Your task to perform on an android device: open app "Speedtest by Ookla" (install if not already installed), go to login, and select forgot password Image 0: 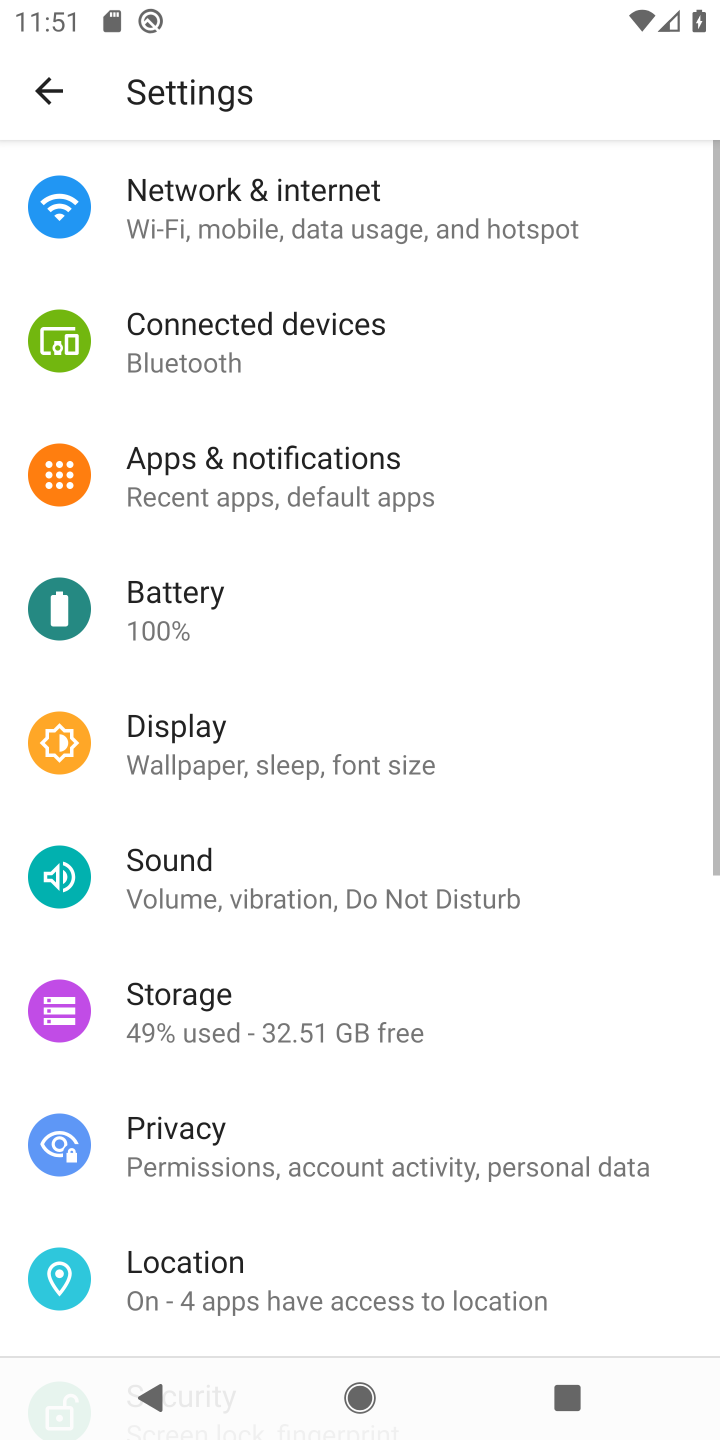
Step 0: press home button
Your task to perform on an android device: open app "Speedtest by Ookla" (install if not already installed), go to login, and select forgot password Image 1: 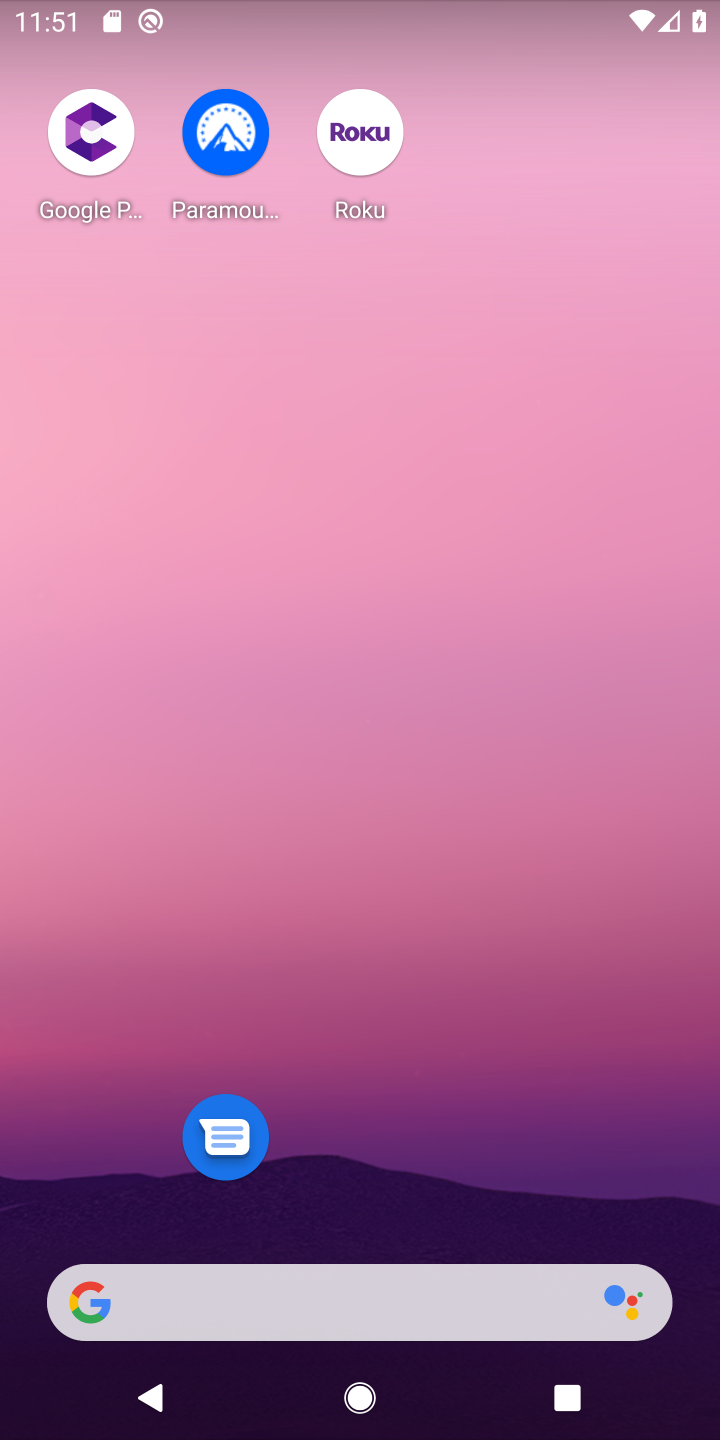
Step 1: drag from (351, 1239) to (420, 333)
Your task to perform on an android device: open app "Speedtest by Ookla" (install if not already installed), go to login, and select forgot password Image 2: 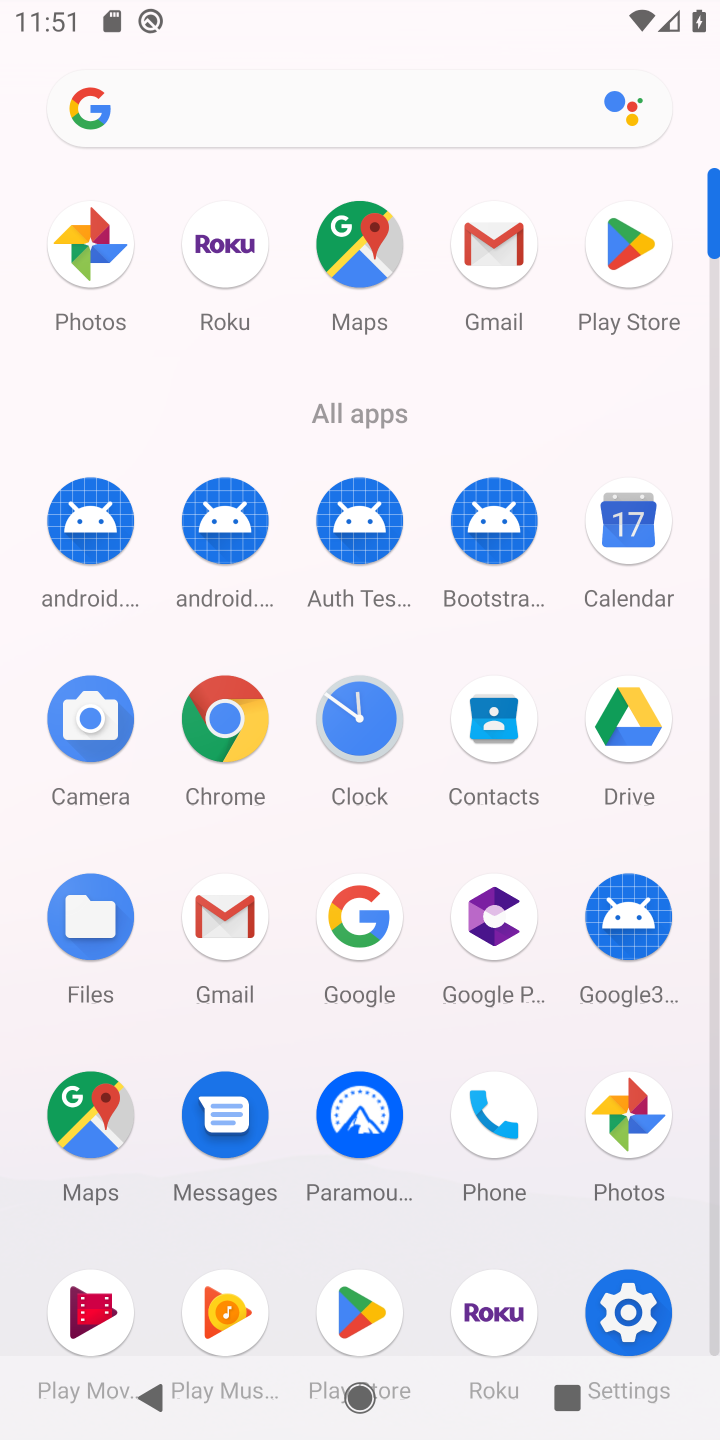
Step 2: click (604, 248)
Your task to perform on an android device: open app "Speedtest by Ookla" (install if not already installed), go to login, and select forgot password Image 3: 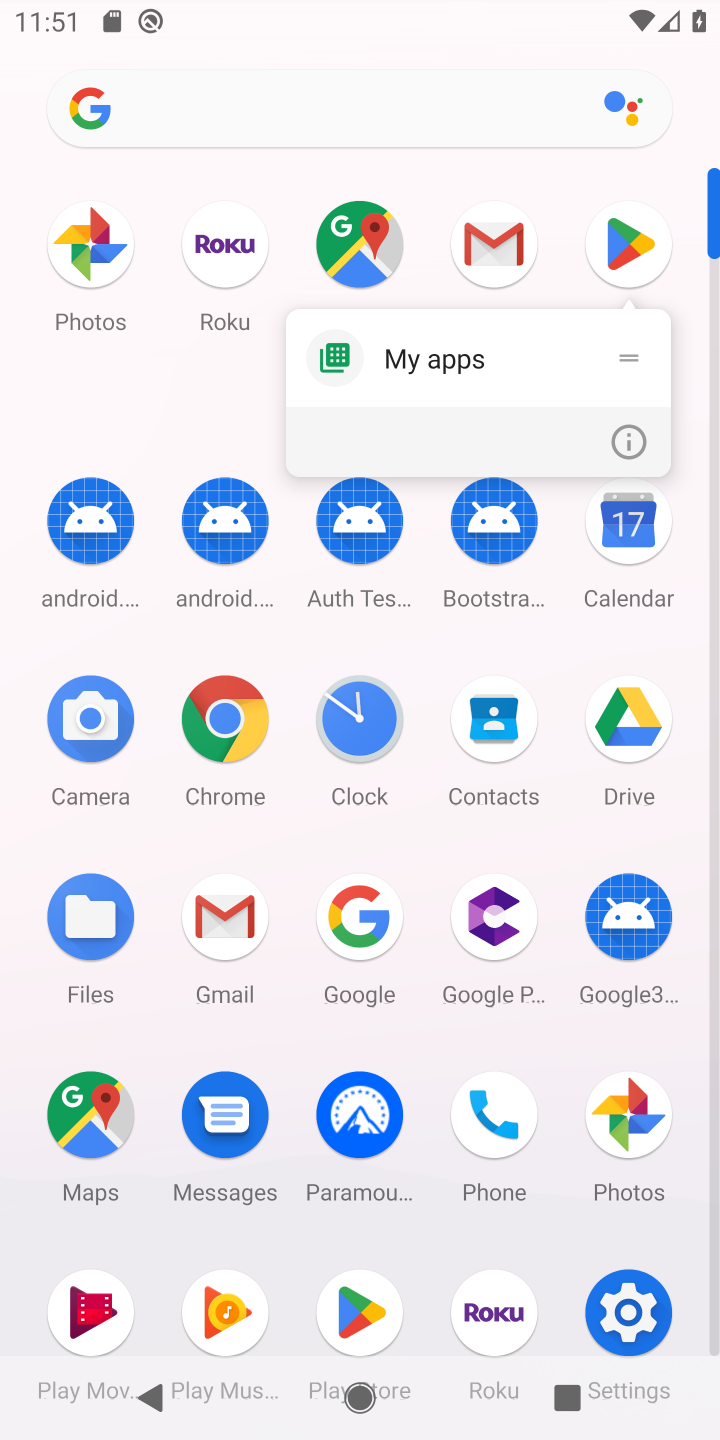
Step 3: click (614, 261)
Your task to perform on an android device: open app "Speedtest by Ookla" (install if not already installed), go to login, and select forgot password Image 4: 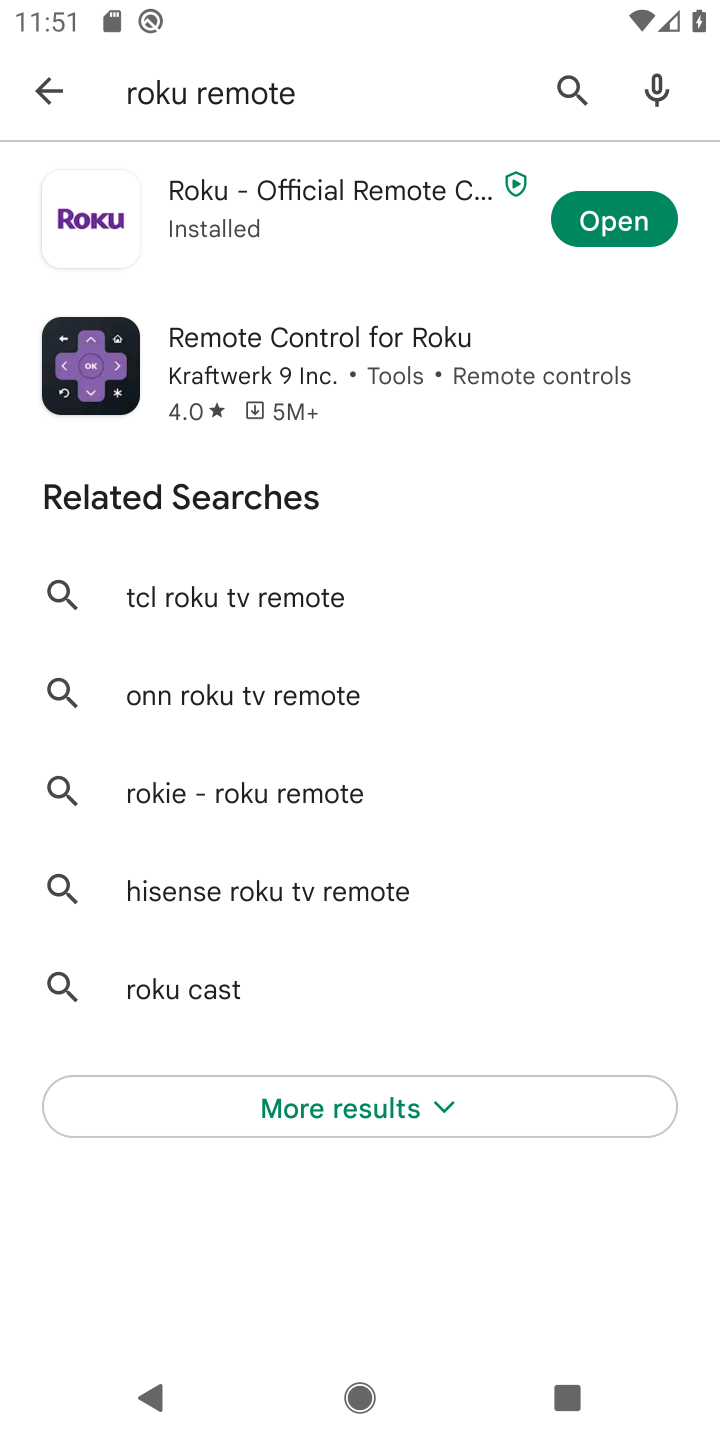
Step 4: click (48, 84)
Your task to perform on an android device: open app "Speedtest by Ookla" (install if not already installed), go to login, and select forgot password Image 5: 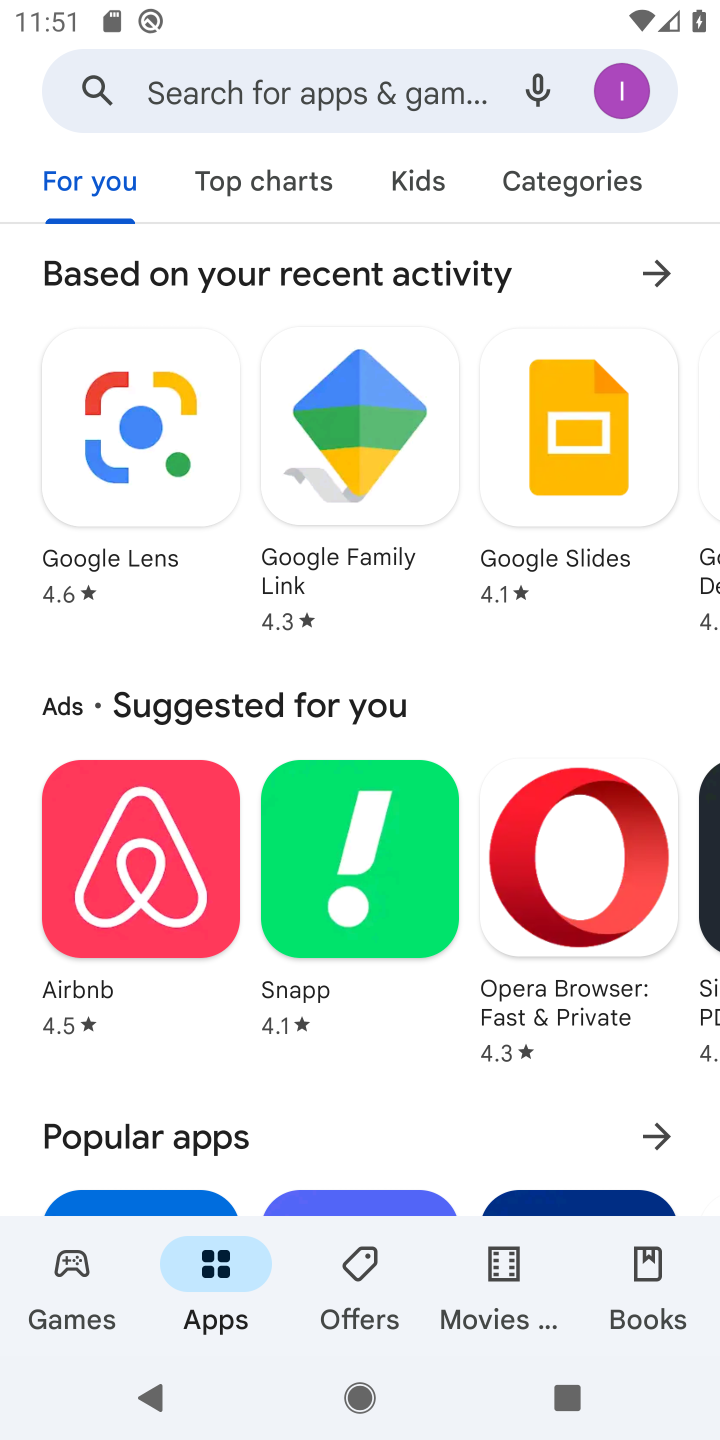
Step 5: click (248, 84)
Your task to perform on an android device: open app "Speedtest by Ookla" (install if not already installed), go to login, and select forgot password Image 6: 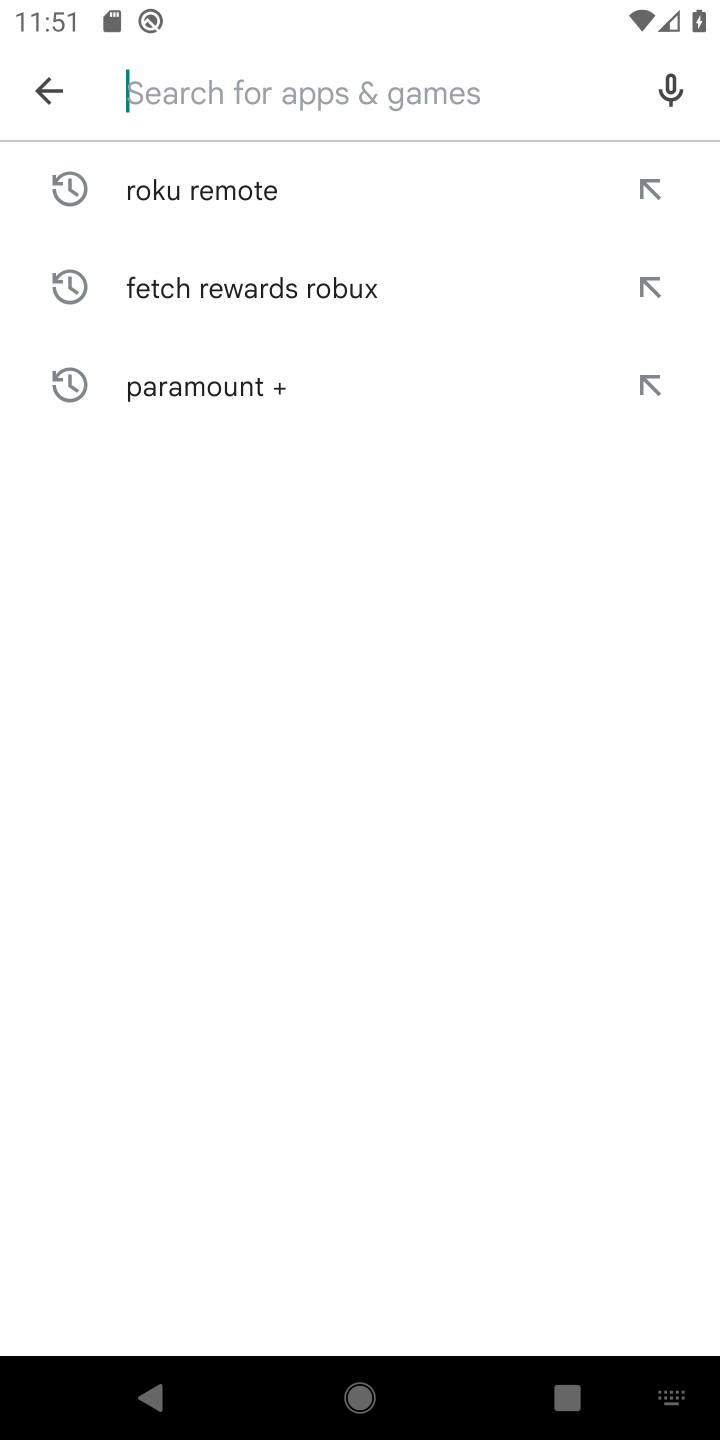
Step 6: type "Speedtest by Ookla "
Your task to perform on an android device: open app "Speedtest by Ookla" (install if not already installed), go to login, and select forgot password Image 7: 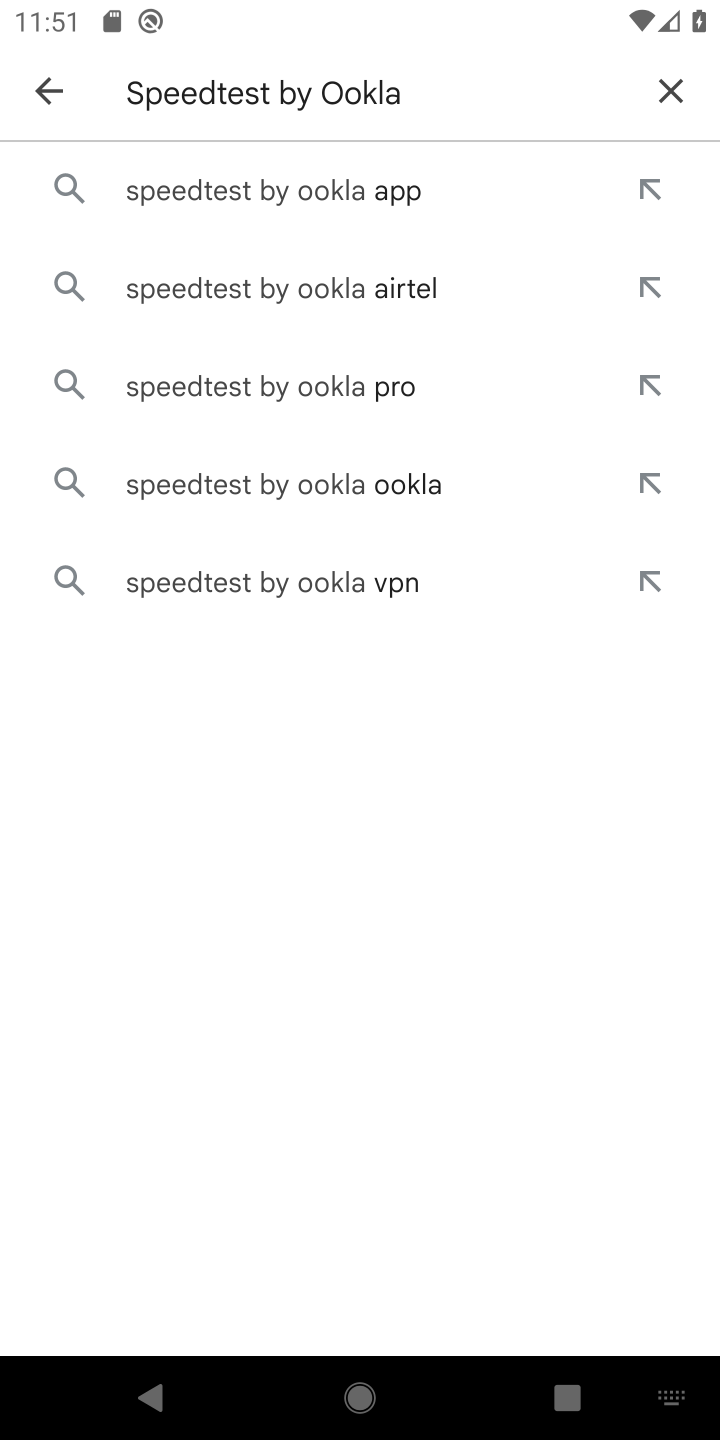
Step 7: click (365, 188)
Your task to perform on an android device: open app "Speedtest by Ookla" (install if not already installed), go to login, and select forgot password Image 8: 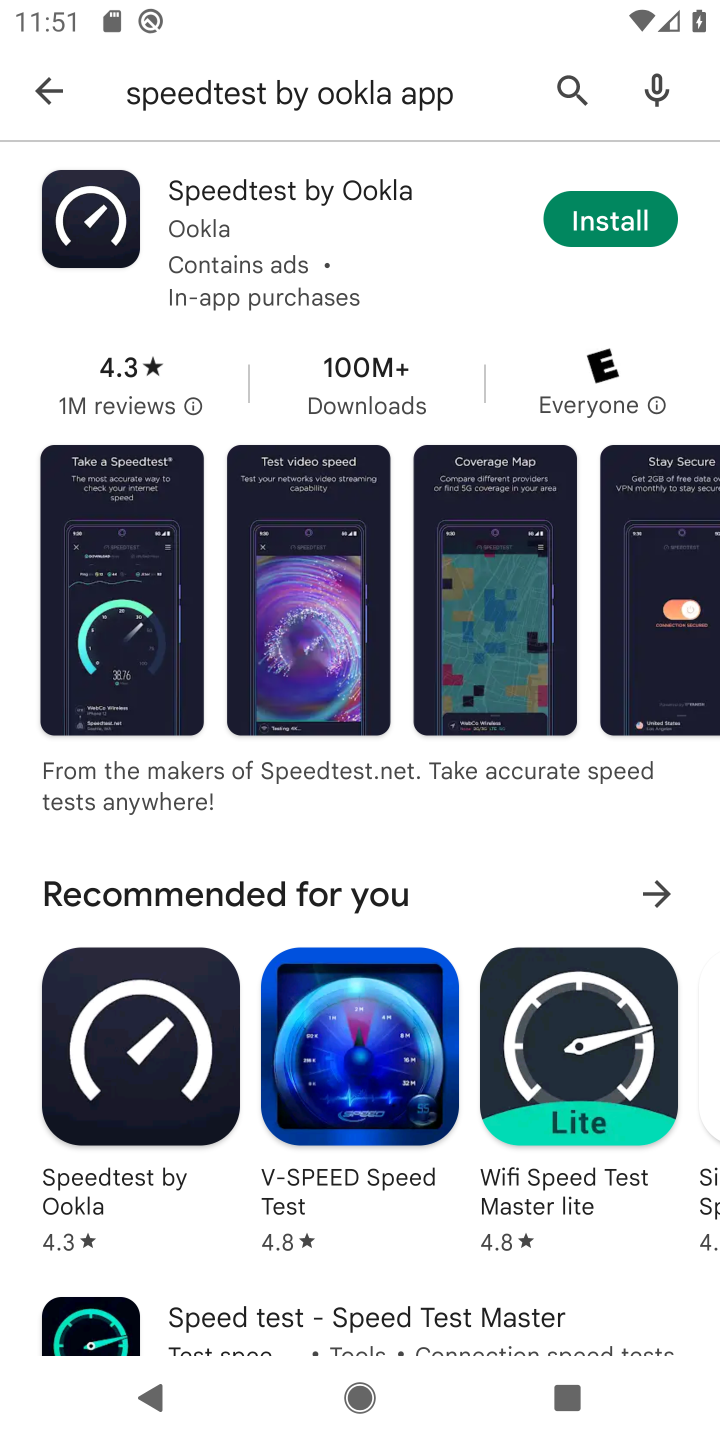
Step 8: click (616, 222)
Your task to perform on an android device: open app "Speedtest by Ookla" (install if not already installed), go to login, and select forgot password Image 9: 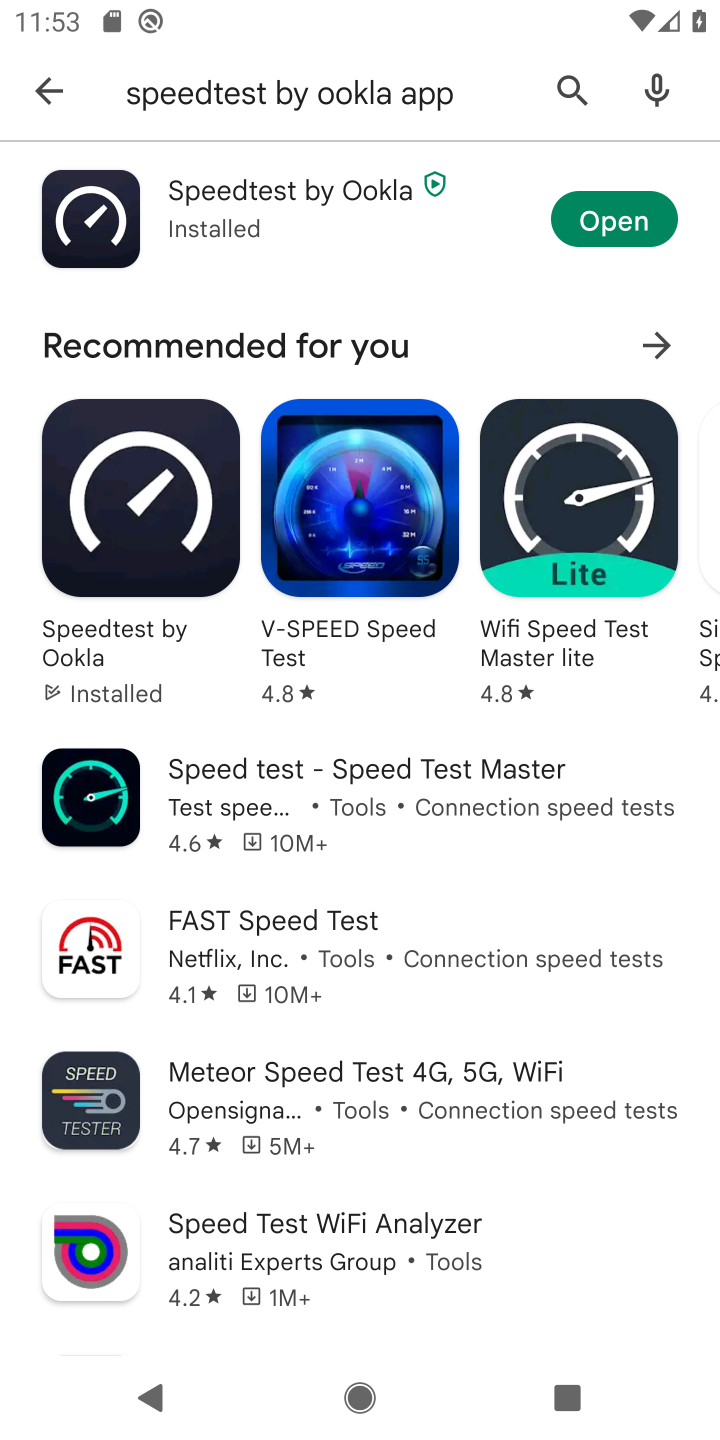
Step 9: click (618, 208)
Your task to perform on an android device: open app "Speedtest by Ookla" (install if not already installed), go to login, and select forgot password Image 10: 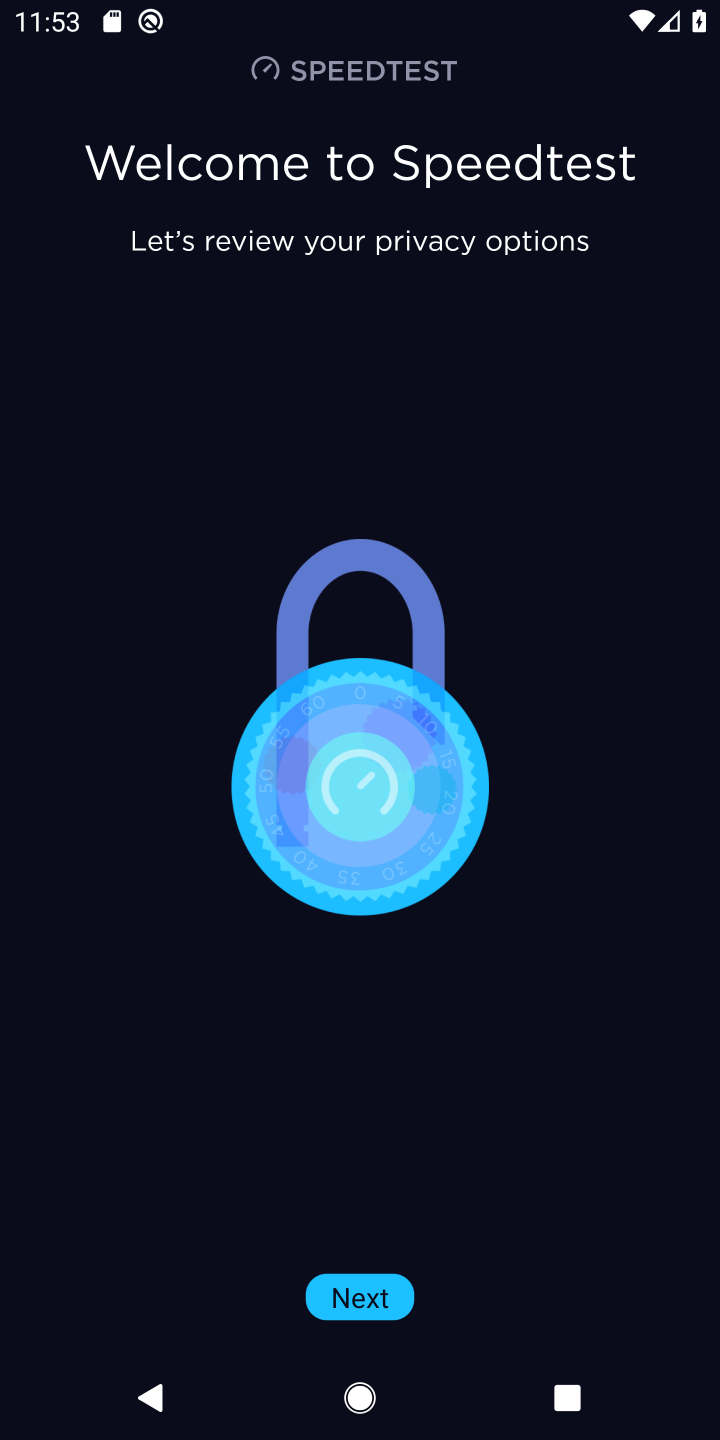
Step 10: click (333, 1299)
Your task to perform on an android device: open app "Speedtest by Ookla" (install if not already installed), go to login, and select forgot password Image 11: 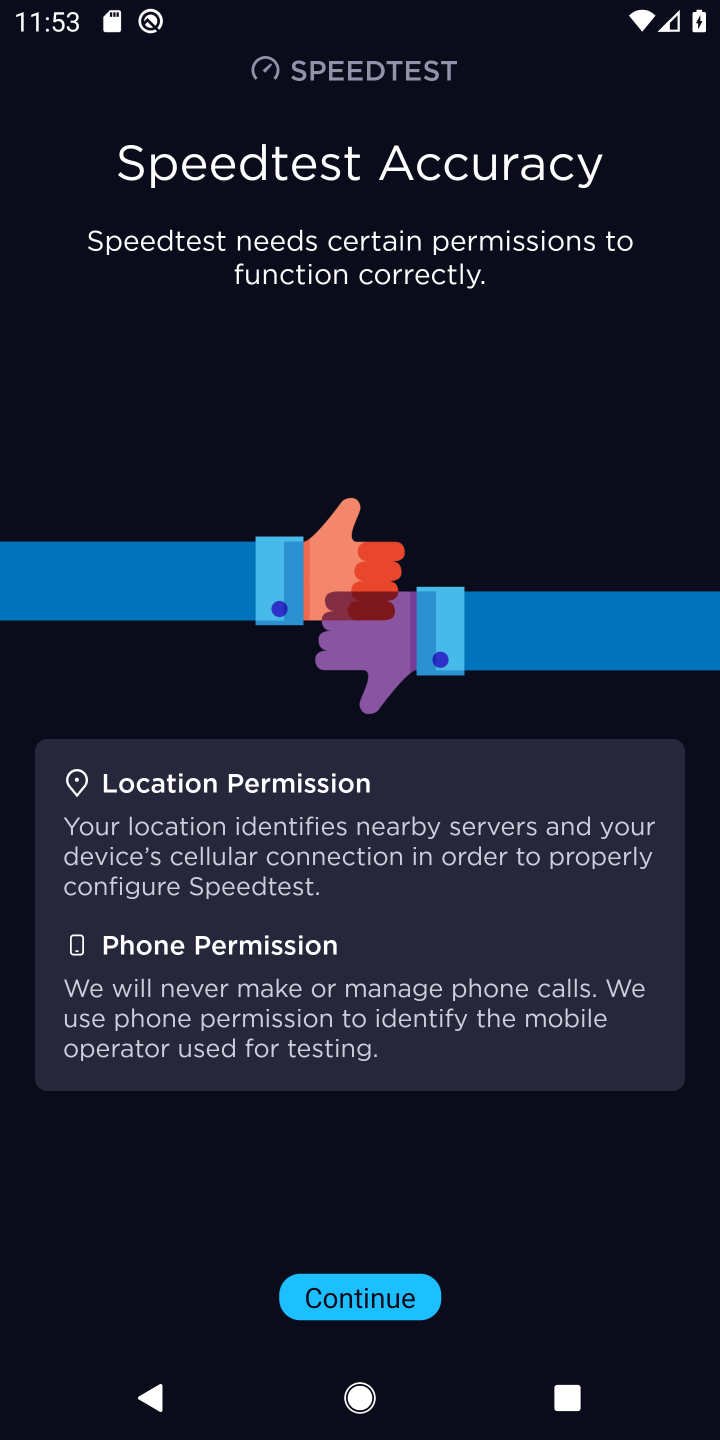
Step 11: click (333, 1299)
Your task to perform on an android device: open app "Speedtest by Ookla" (install if not already installed), go to login, and select forgot password Image 12: 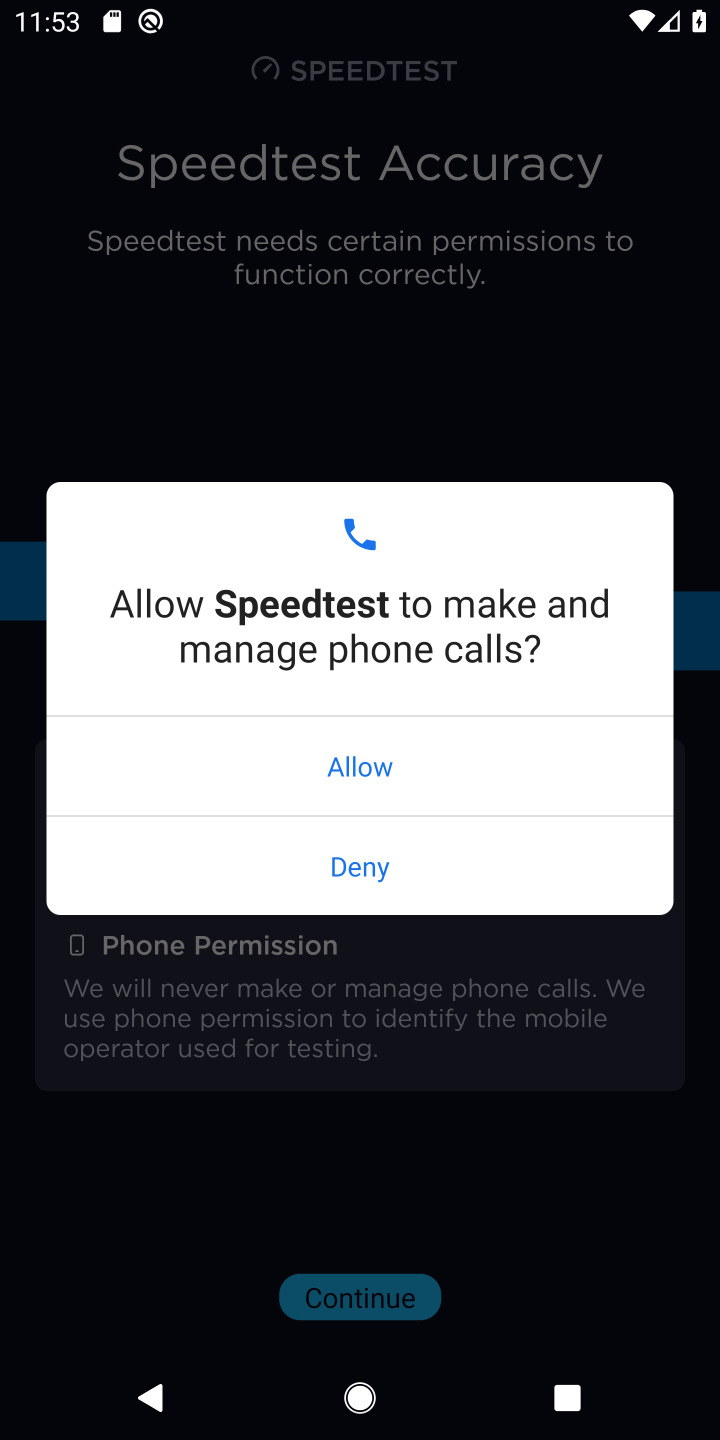
Step 12: click (466, 757)
Your task to perform on an android device: open app "Speedtest by Ookla" (install if not already installed), go to login, and select forgot password Image 13: 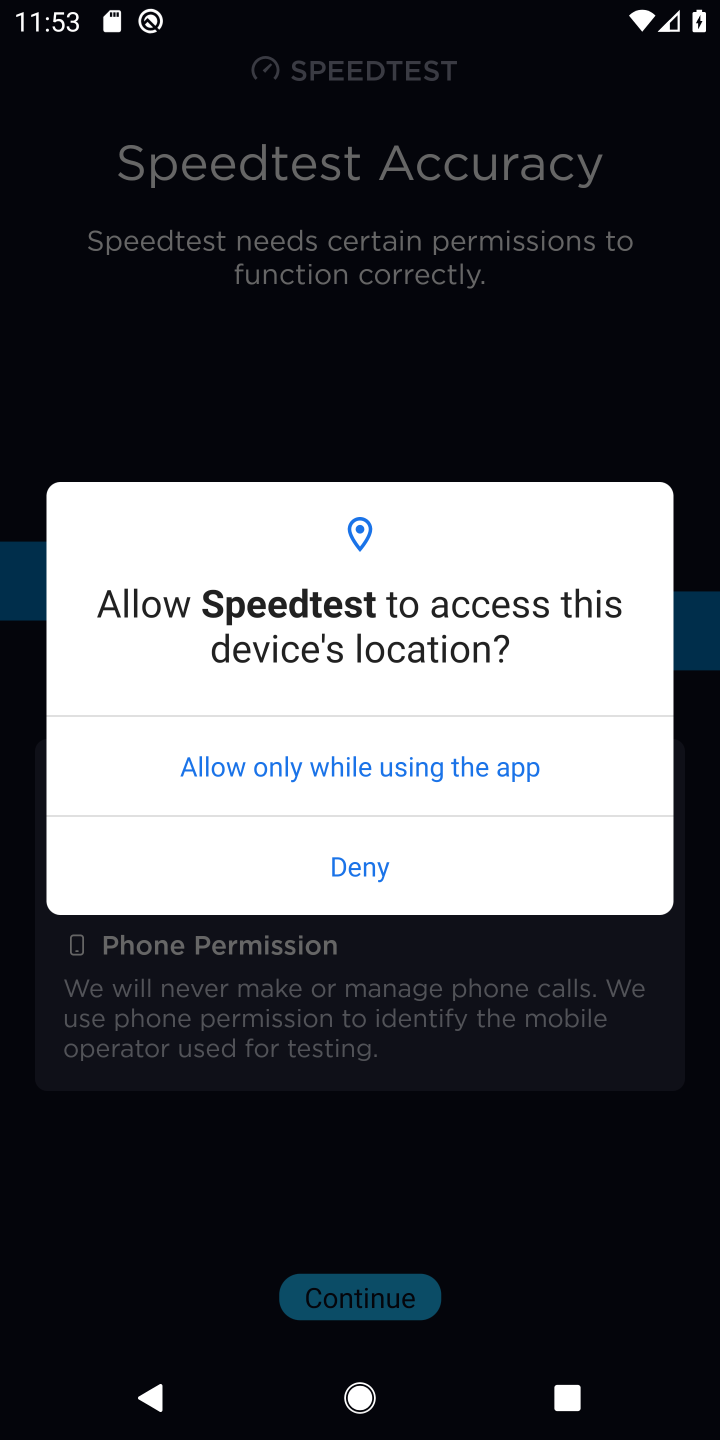
Step 13: click (458, 771)
Your task to perform on an android device: open app "Speedtest by Ookla" (install if not already installed), go to login, and select forgot password Image 14: 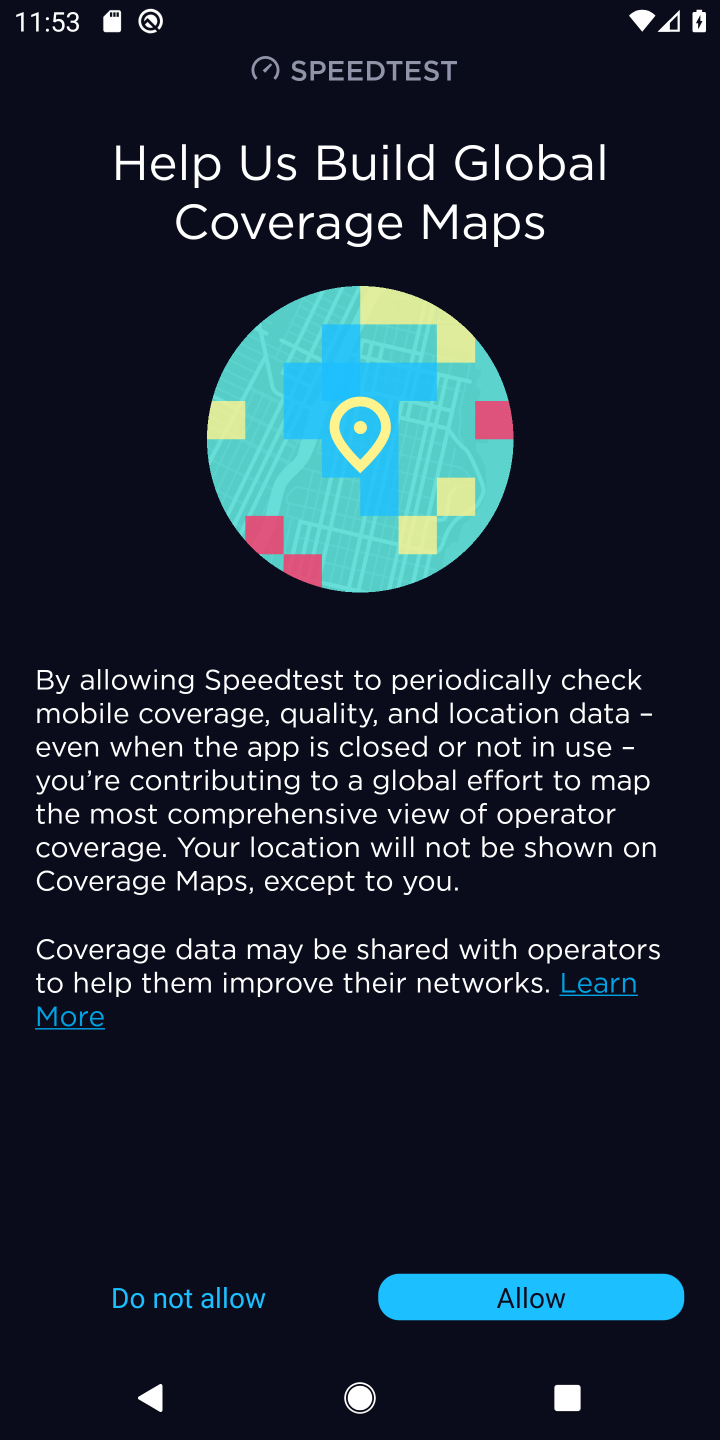
Step 14: click (553, 1290)
Your task to perform on an android device: open app "Speedtest by Ookla" (install if not already installed), go to login, and select forgot password Image 15: 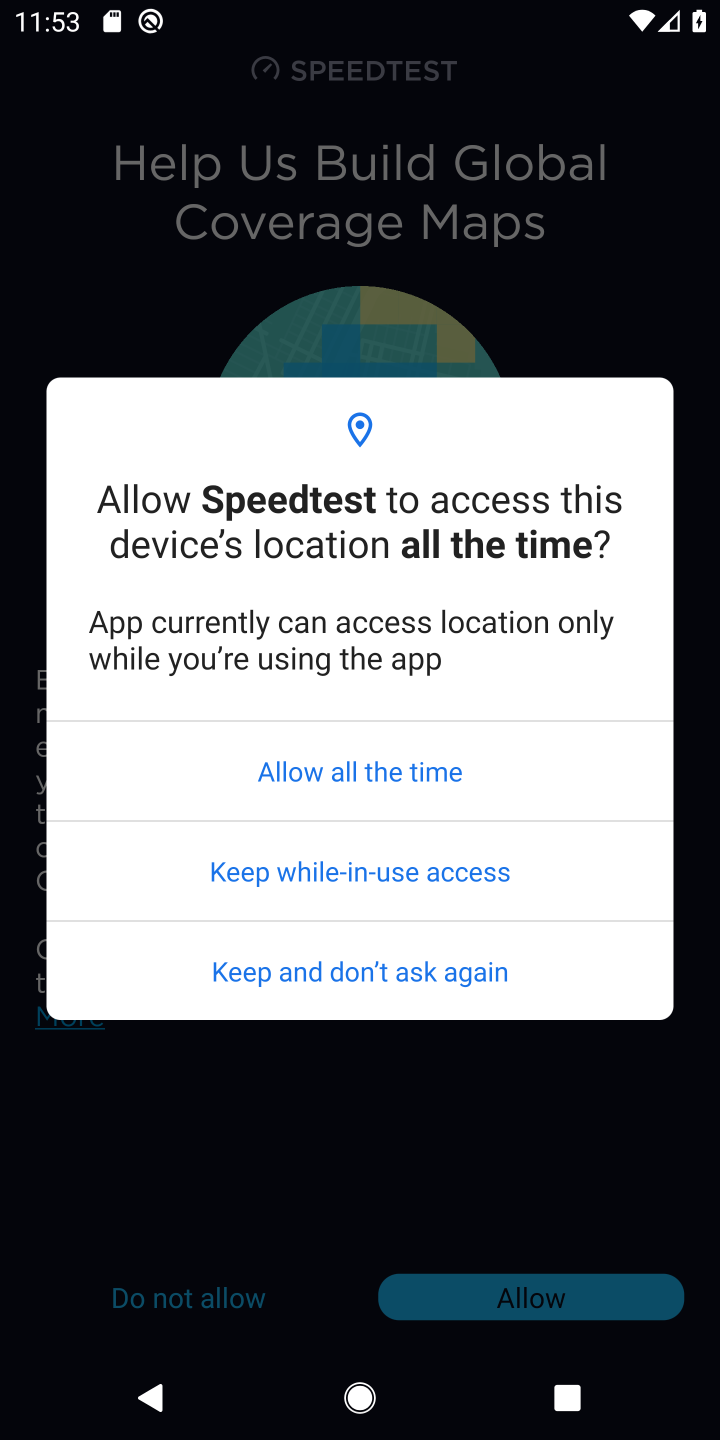
Step 15: click (455, 774)
Your task to perform on an android device: open app "Speedtest by Ookla" (install if not already installed), go to login, and select forgot password Image 16: 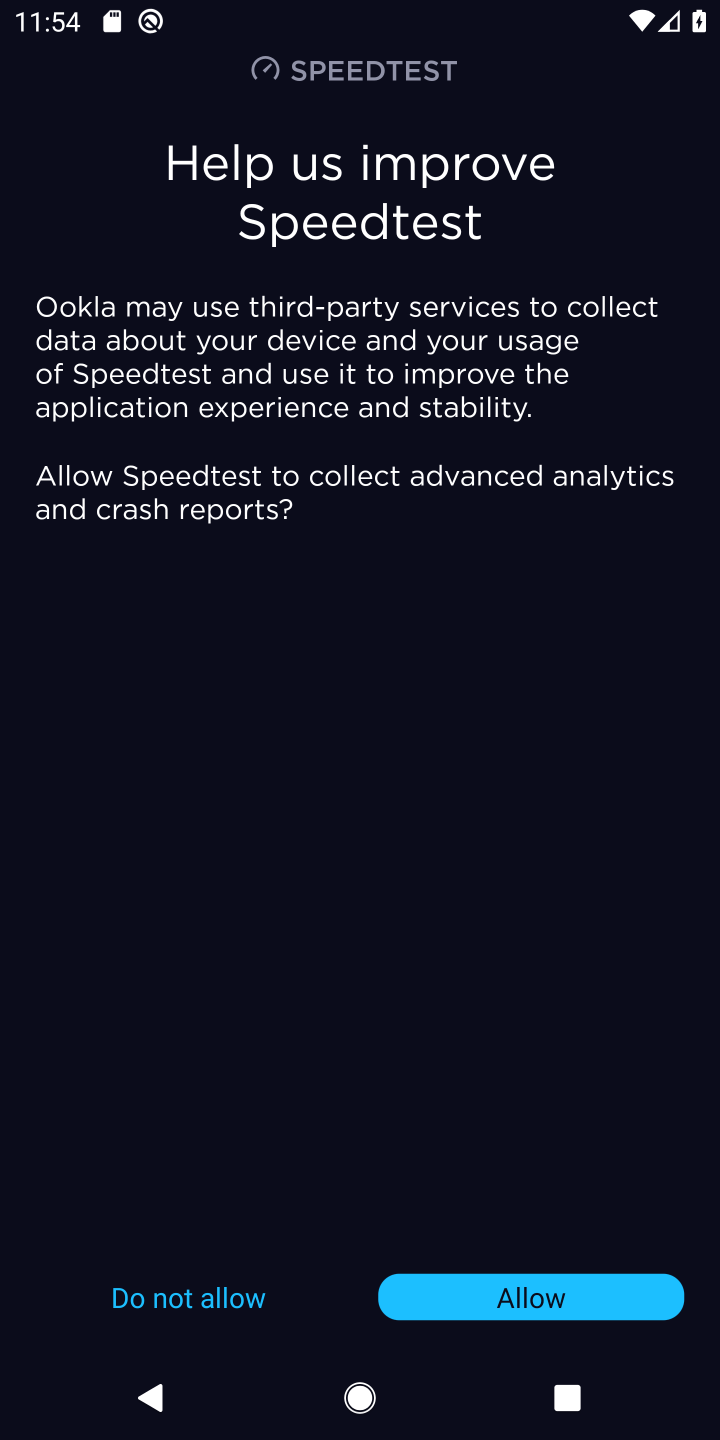
Step 16: task complete